Your task to perform on an android device: toggle javascript in the chrome app Image 0: 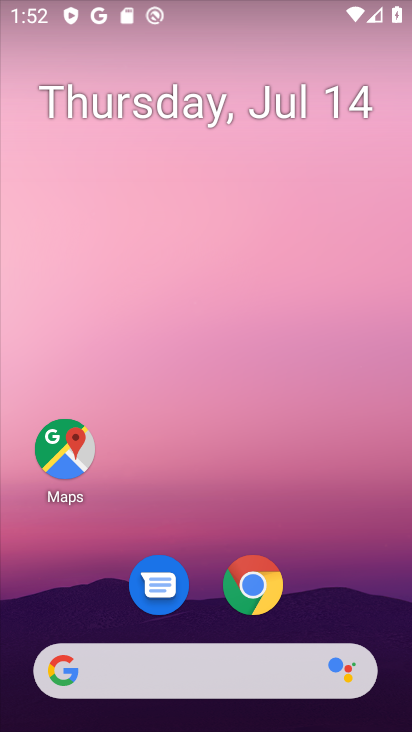
Step 0: click (267, 587)
Your task to perform on an android device: toggle javascript in the chrome app Image 1: 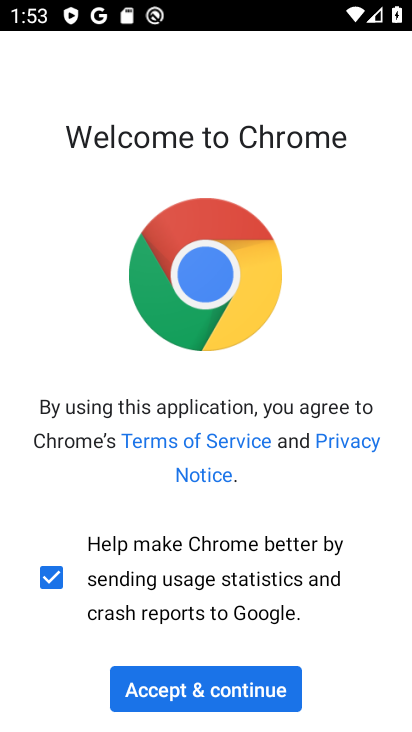
Step 1: click (279, 688)
Your task to perform on an android device: toggle javascript in the chrome app Image 2: 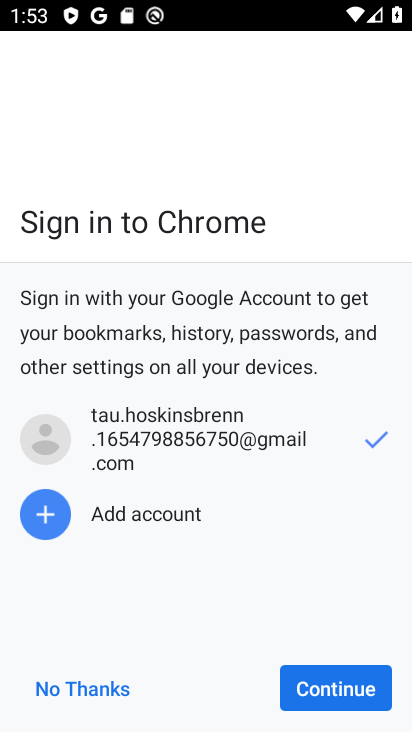
Step 2: click (301, 688)
Your task to perform on an android device: toggle javascript in the chrome app Image 3: 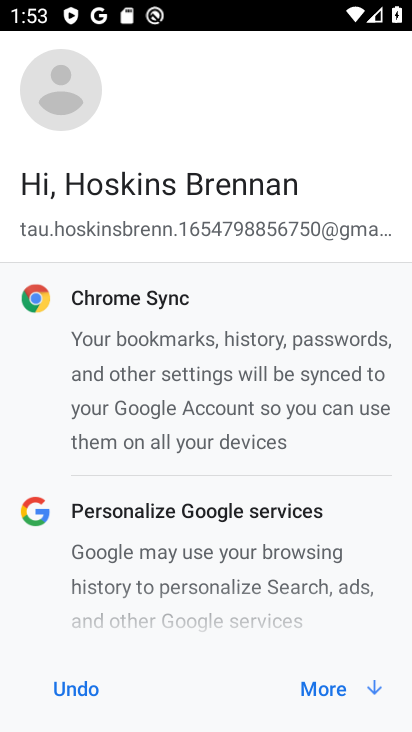
Step 3: click (312, 688)
Your task to perform on an android device: toggle javascript in the chrome app Image 4: 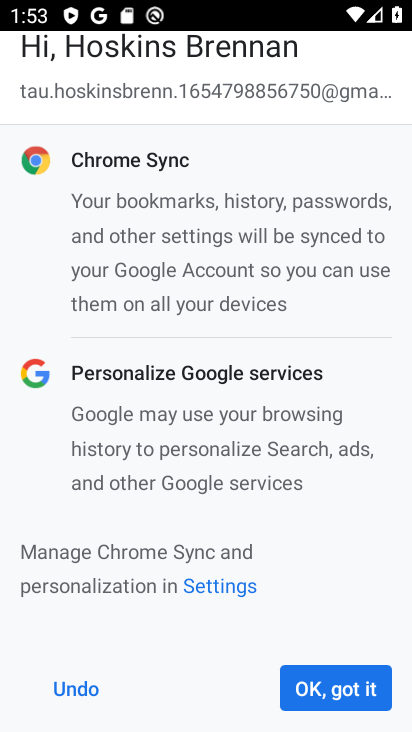
Step 4: click (332, 688)
Your task to perform on an android device: toggle javascript in the chrome app Image 5: 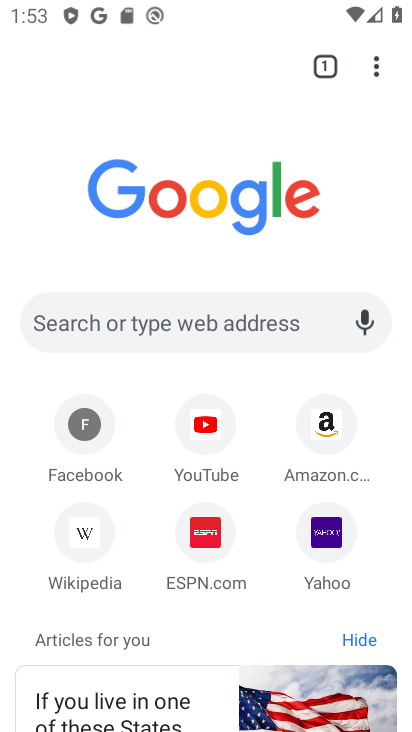
Step 5: click (374, 57)
Your task to perform on an android device: toggle javascript in the chrome app Image 6: 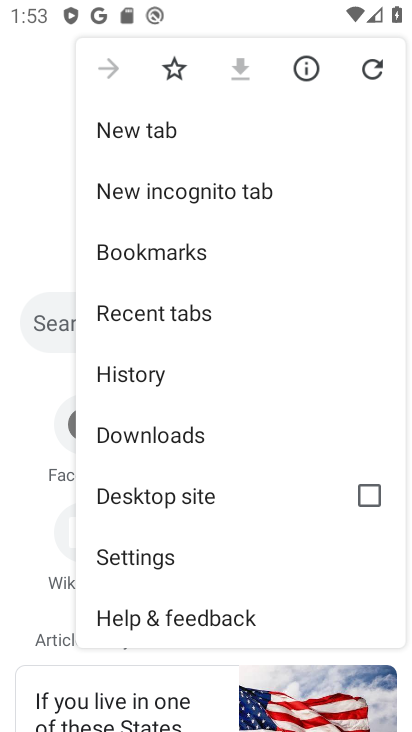
Step 6: click (157, 558)
Your task to perform on an android device: toggle javascript in the chrome app Image 7: 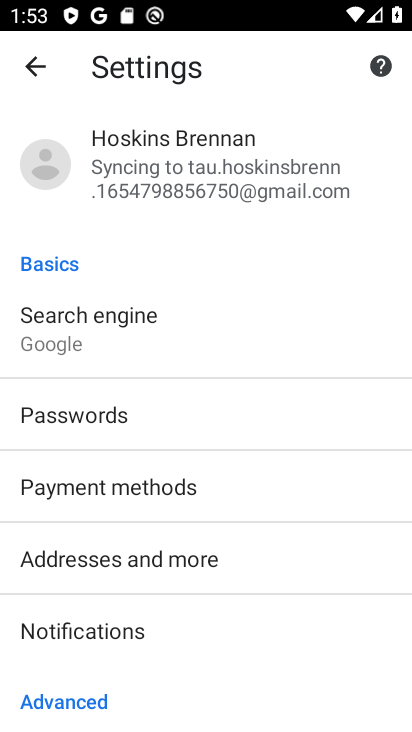
Step 7: drag from (227, 622) to (236, 188)
Your task to perform on an android device: toggle javascript in the chrome app Image 8: 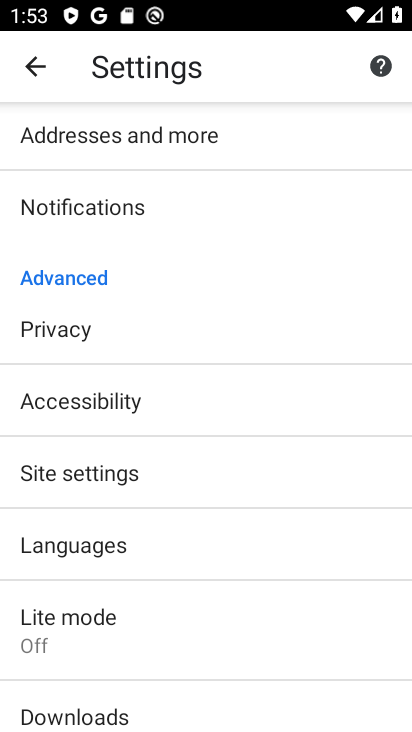
Step 8: click (125, 464)
Your task to perform on an android device: toggle javascript in the chrome app Image 9: 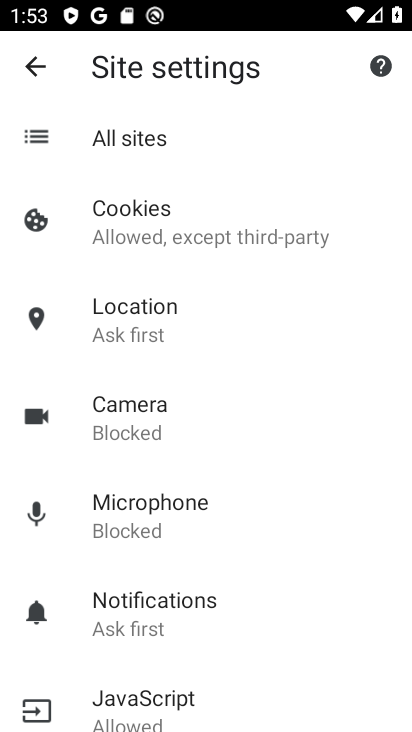
Step 9: drag from (262, 614) to (300, 426)
Your task to perform on an android device: toggle javascript in the chrome app Image 10: 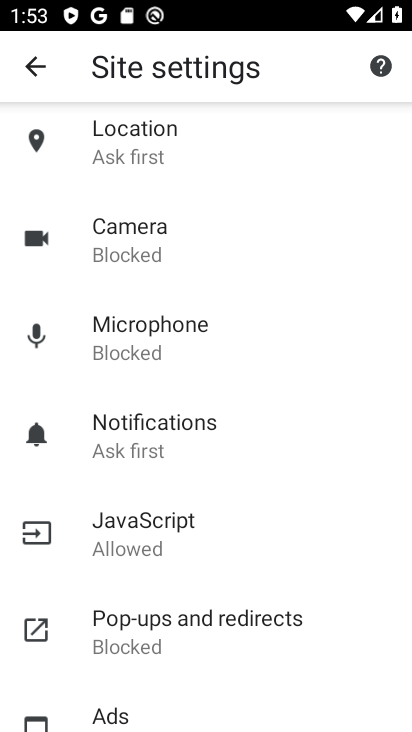
Step 10: click (170, 520)
Your task to perform on an android device: toggle javascript in the chrome app Image 11: 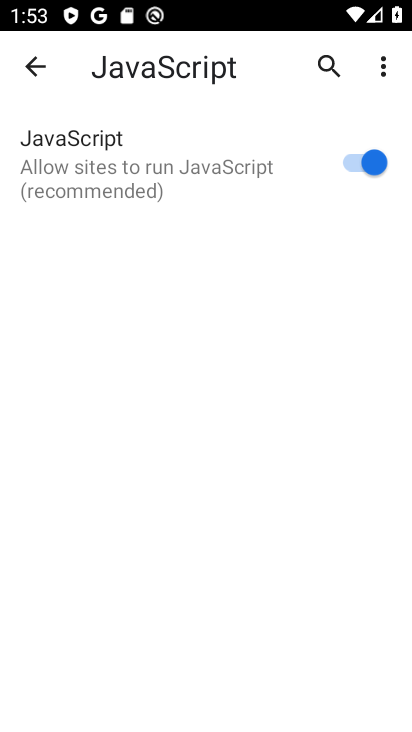
Step 11: click (368, 164)
Your task to perform on an android device: toggle javascript in the chrome app Image 12: 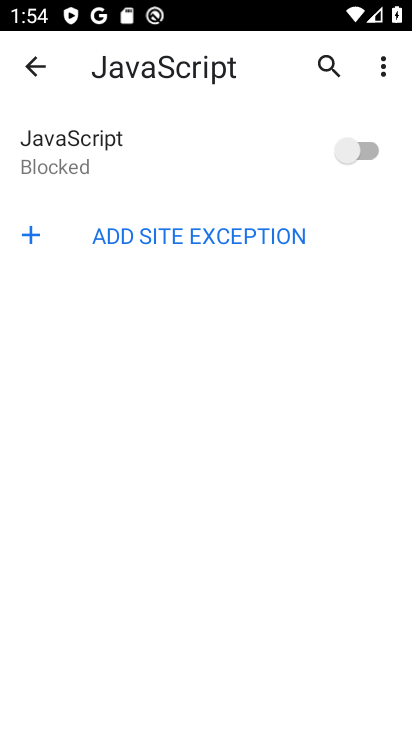
Step 12: task complete